Your task to perform on an android device: Search for vegetarian restaurants on Maps Image 0: 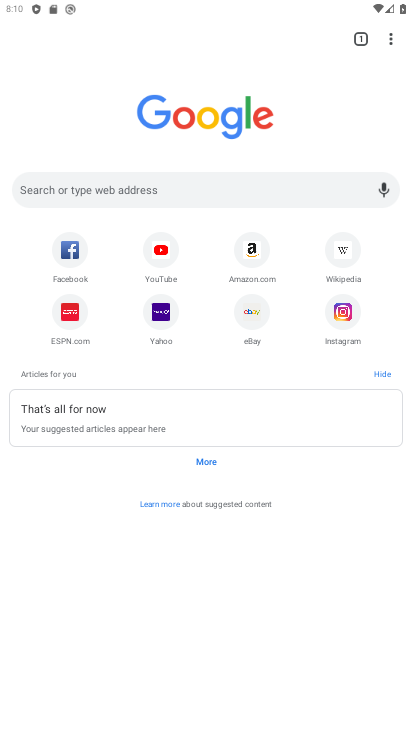
Step 0: press home button
Your task to perform on an android device: Search for vegetarian restaurants on Maps Image 1: 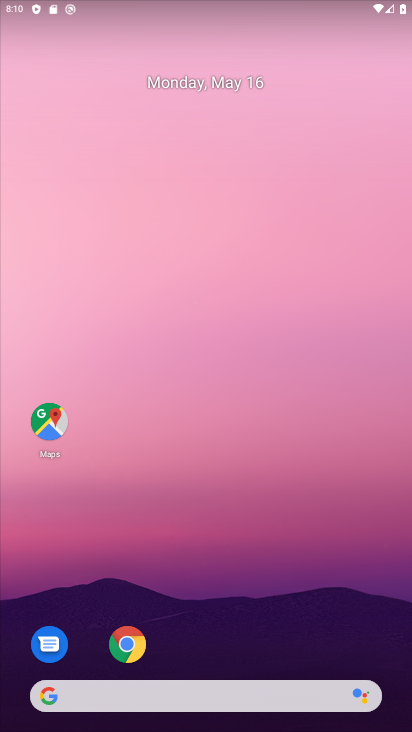
Step 1: drag from (374, 695) to (373, 172)
Your task to perform on an android device: Search for vegetarian restaurants on Maps Image 2: 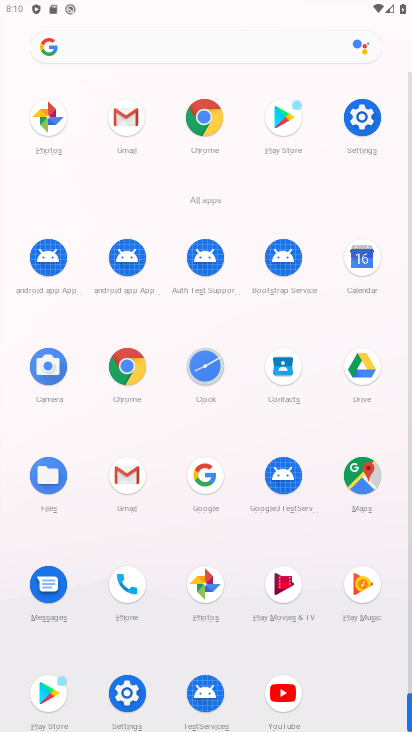
Step 2: click (367, 477)
Your task to perform on an android device: Search for vegetarian restaurants on Maps Image 3: 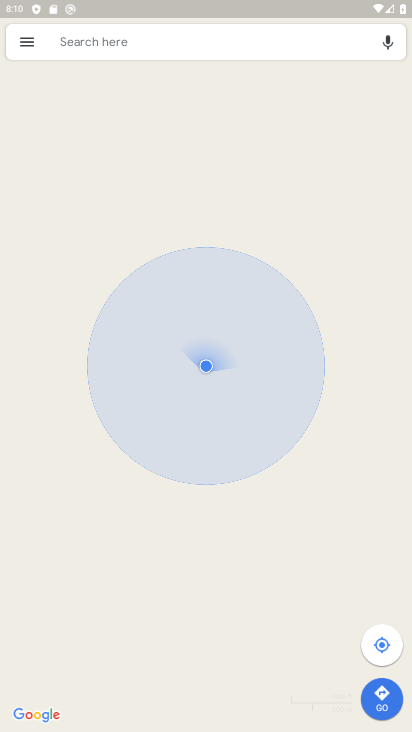
Step 3: click (343, 26)
Your task to perform on an android device: Search for vegetarian restaurants on Maps Image 4: 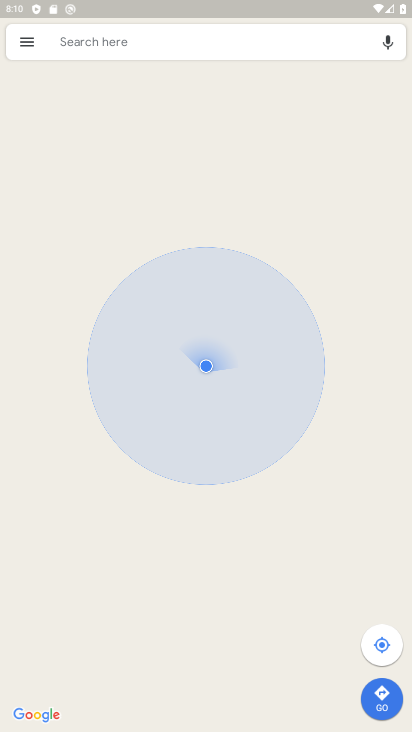
Step 4: click (340, 31)
Your task to perform on an android device: Search for vegetarian restaurants on Maps Image 5: 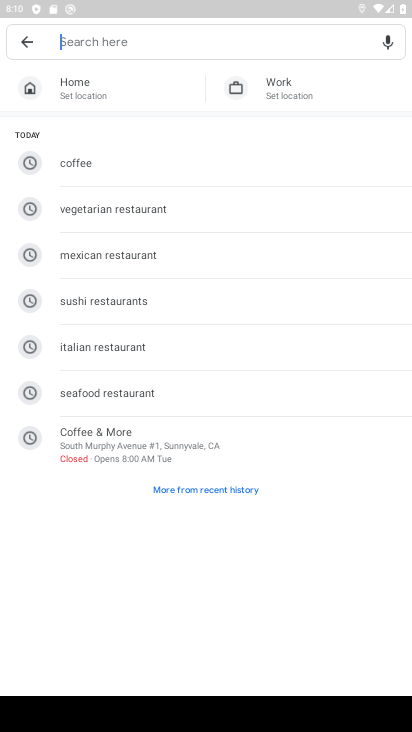
Step 5: click (152, 204)
Your task to perform on an android device: Search for vegetarian restaurants on Maps Image 6: 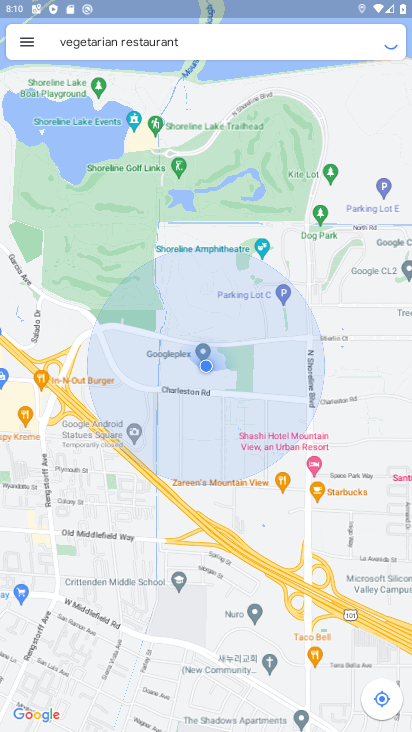
Step 6: task complete